Your task to perform on an android device: check data usage Image 0: 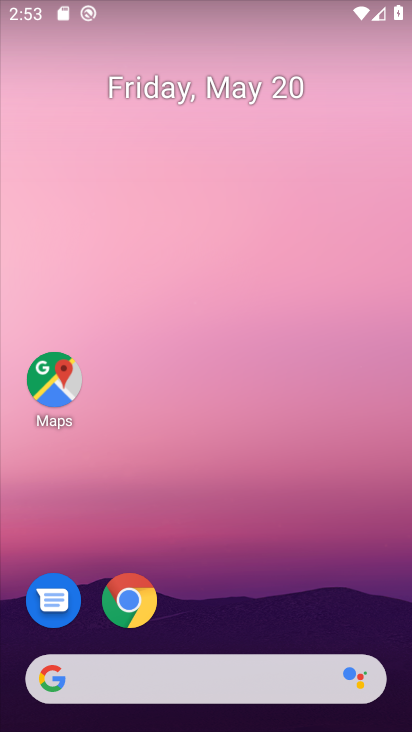
Step 0: drag from (359, 610) to (351, 158)
Your task to perform on an android device: check data usage Image 1: 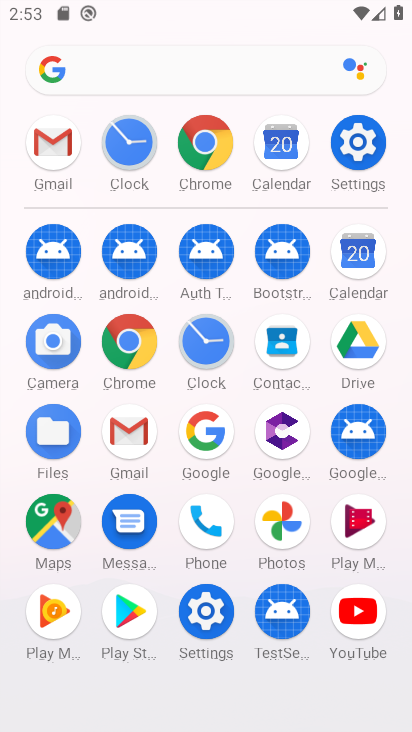
Step 1: click (359, 160)
Your task to perform on an android device: check data usage Image 2: 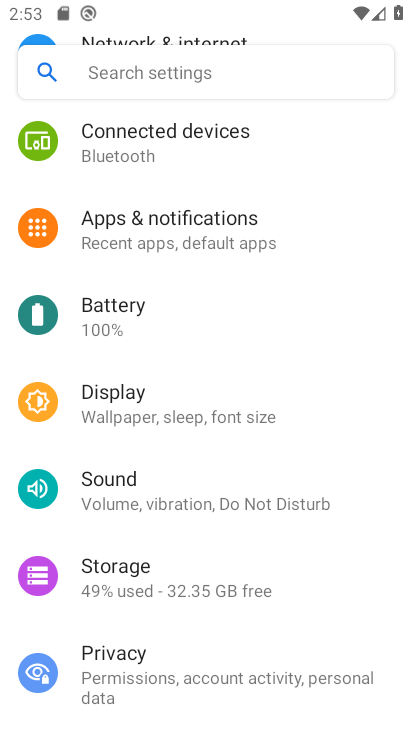
Step 2: drag from (349, 321) to (349, 466)
Your task to perform on an android device: check data usage Image 3: 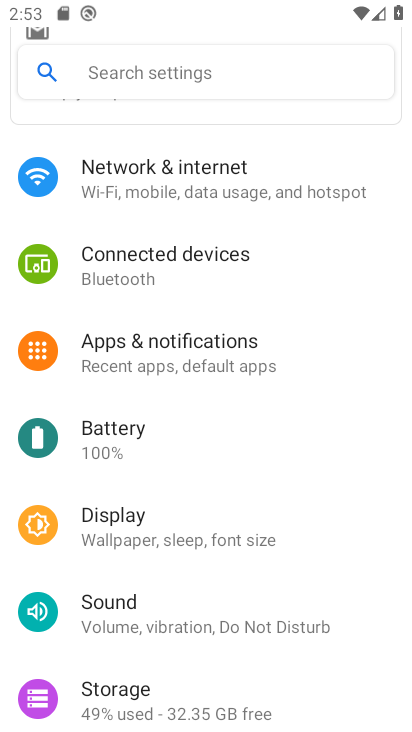
Step 3: drag from (342, 317) to (342, 436)
Your task to perform on an android device: check data usage Image 4: 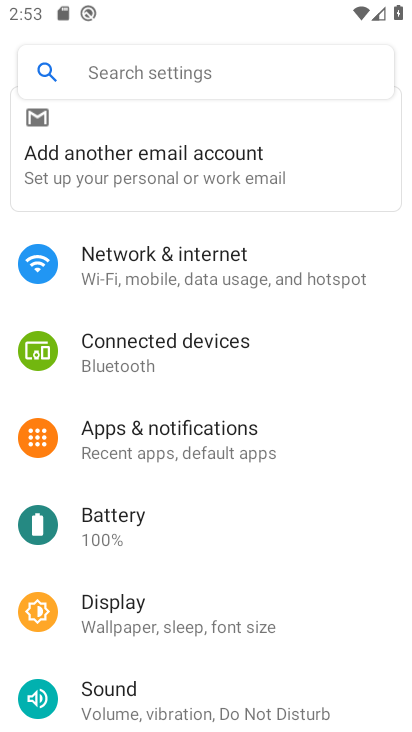
Step 4: drag from (338, 331) to (348, 475)
Your task to perform on an android device: check data usage Image 5: 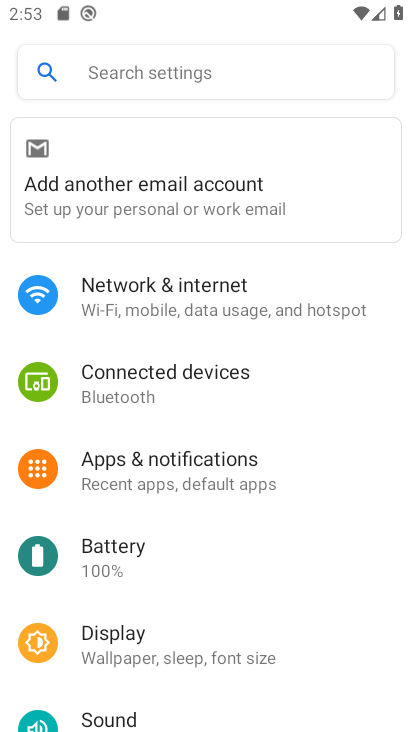
Step 5: drag from (330, 562) to (333, 440)
Your task to perform on an android device: check data usage Image 6: 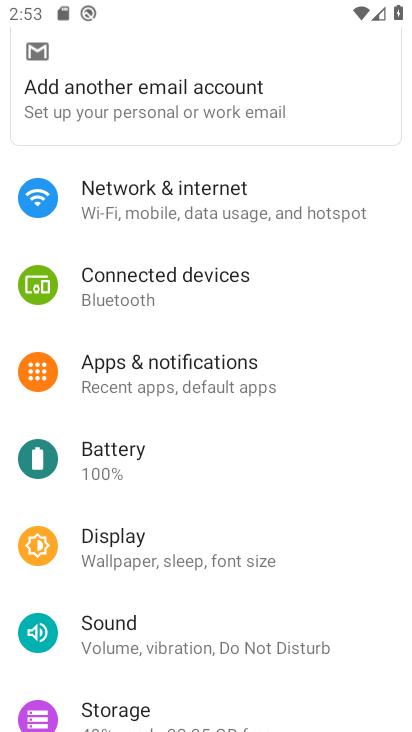
Step 6: drag from (336, 542) to (328, 425)
Your task to perform on an android device: check data usage Image 7: 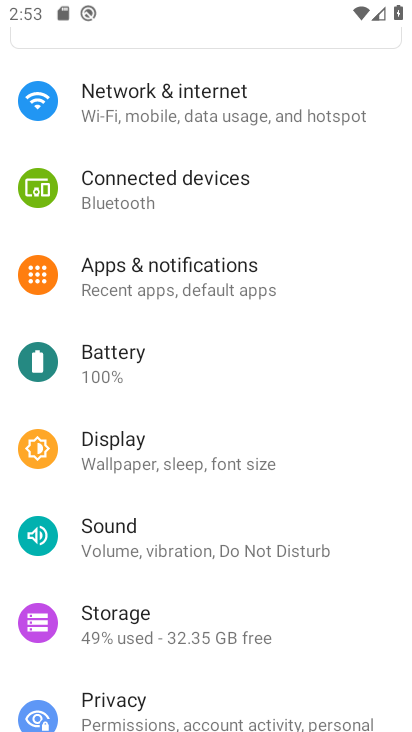
Step 7: drag from (350, 583) to (340, 450)
Your task to perform on an android device: check data usage Image 8: 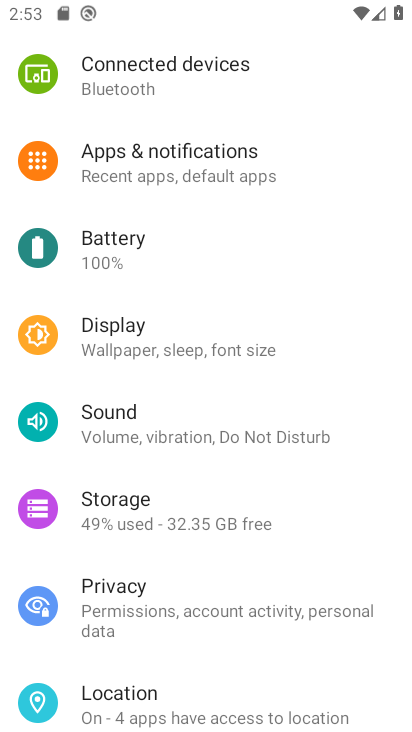
Step 8: drag from (344, 621) to (340, 465)
Your task to perform on an android device: check data usage Image 9: 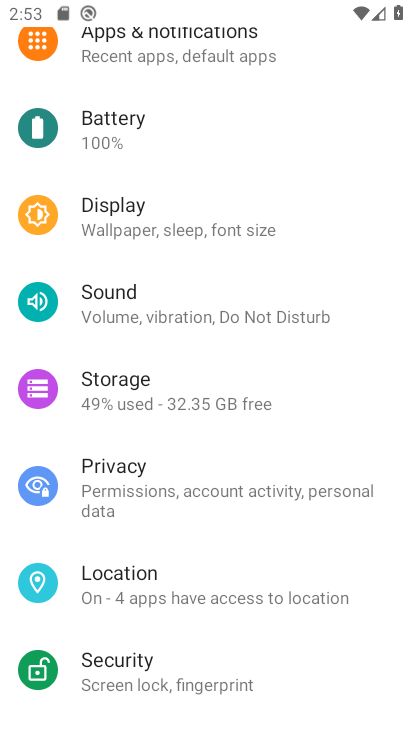
Step 9: drag from (348, 643) to (354, 527)
Your task to perform on an android device: check data usage Image 10: 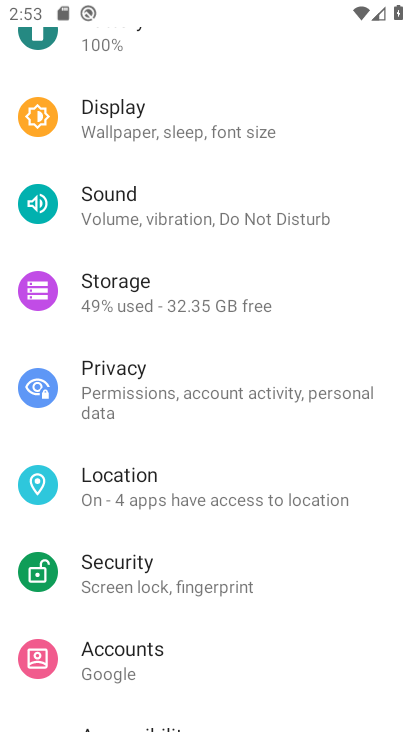
Step 10: drag from (353, 634) to (351, 435)
Your task to perform on an android device: check data usage Image 11: 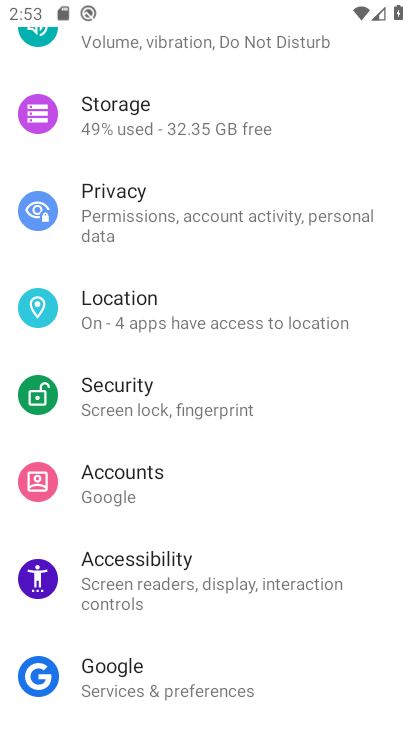
Step 11: drag from (348, 654) to (347, 497)
Your task to perform on an android device: check data usage Image 12: 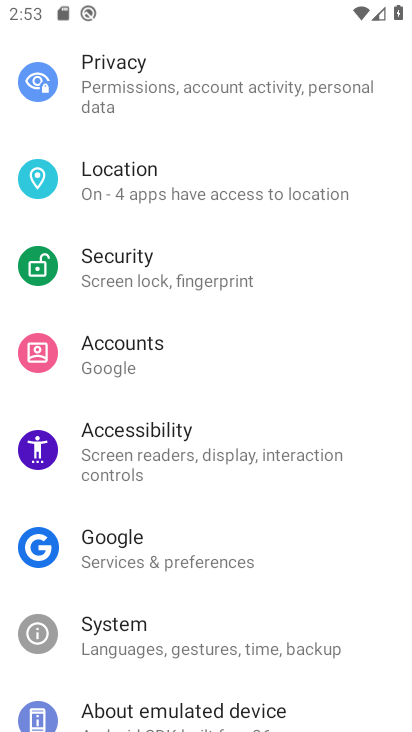
Step 12: drag from (353, 661) to (356, 492)
Your task to perform on an android device: check data usage Image 13: 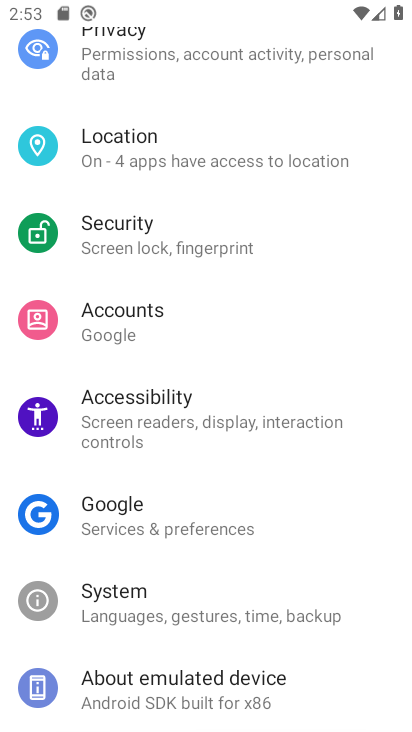
Step 13: drag from (356, 440) to (359, 552)
Your task to perform on an android device: check data usage Image 14: 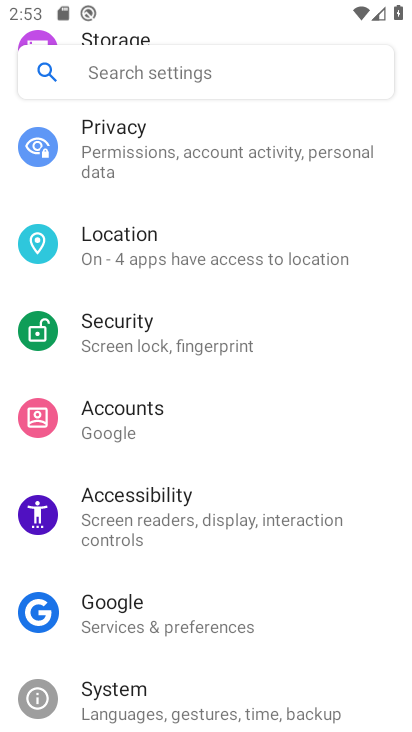
Step 14: drag from (351, 397) to (348, 541)
Your task to perform on an android device: check data usage Image 15: 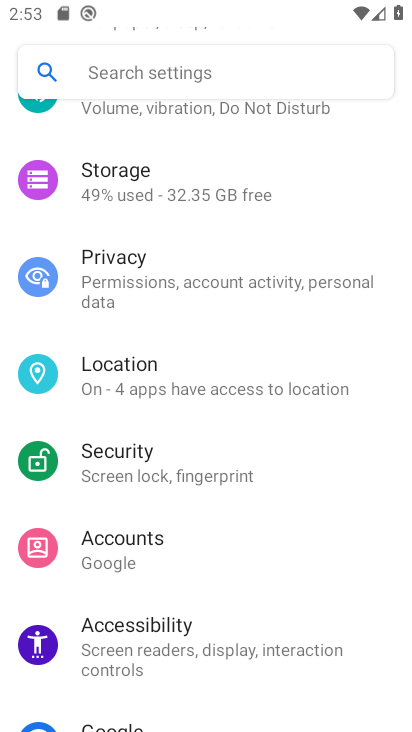
Step 15: drag from (335, 418) to (331, 525)
Your task to perform on an android device: check data usage Image 16: 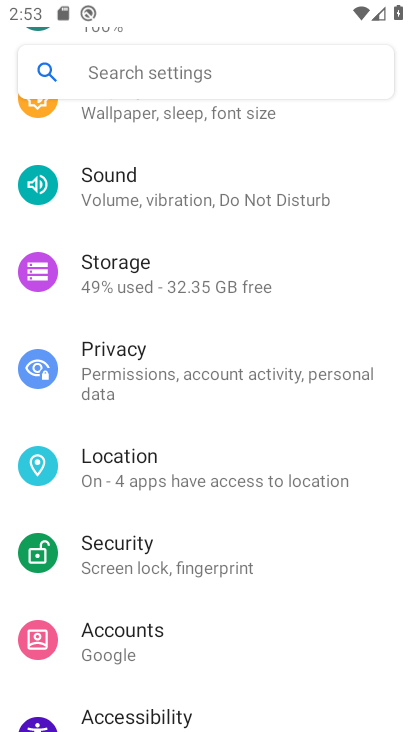
Step 16: drag from (333, 329) to (337, 453)
Your task to perform on an android device: check data usage Image 17: 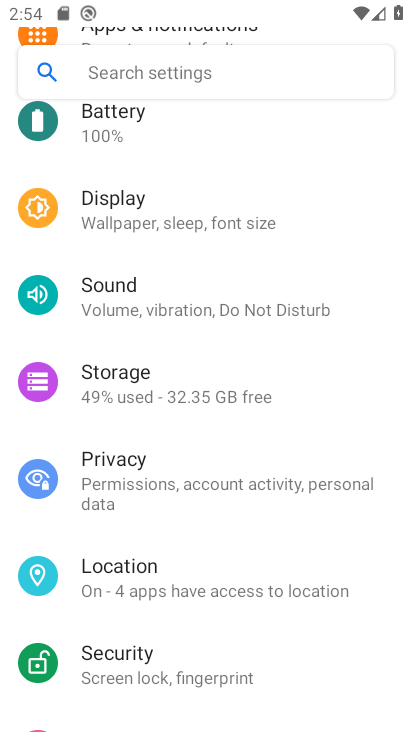
Step 17: drag from (340, 345) to (344, 424)
Your task to perform on an android device: check data usage Image 18: 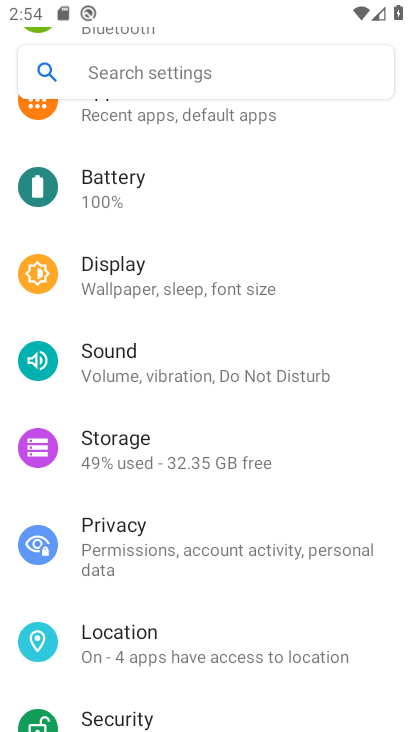
Step 18: drag from (338, 311) to (349, 435)
Your task to perform on an android device: check data usage Image 19: 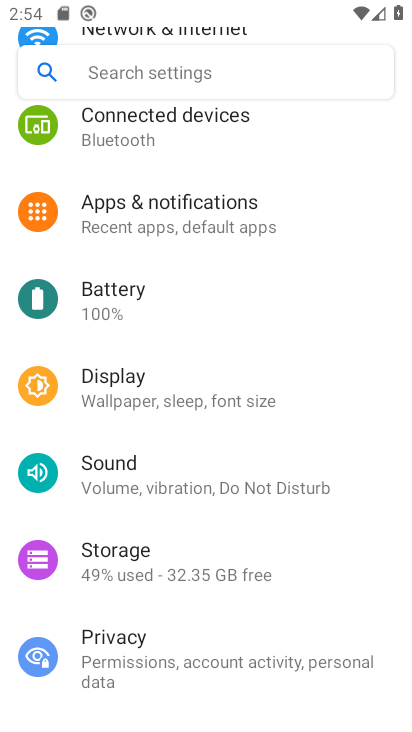
Step 19: drag from (336, 296) to (332, 398)
Your task to perform on an android device: check data usage Image 20: 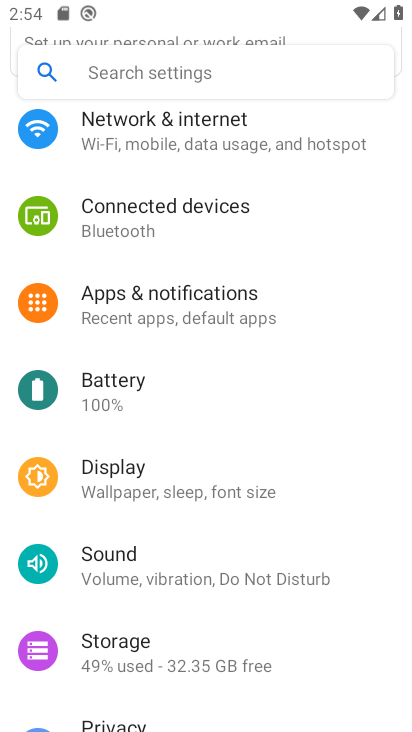
Step 20: drag from (314, 257) to (318, 367)
Your task to perform on an android device: check data usage Image 21: 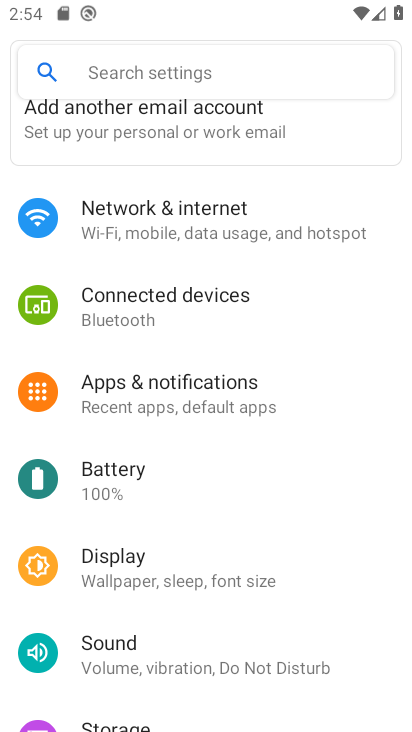
Step 21: drag from (318, 190) to (326, 379)
Your task to perform on an android device: check data usage Image 22: 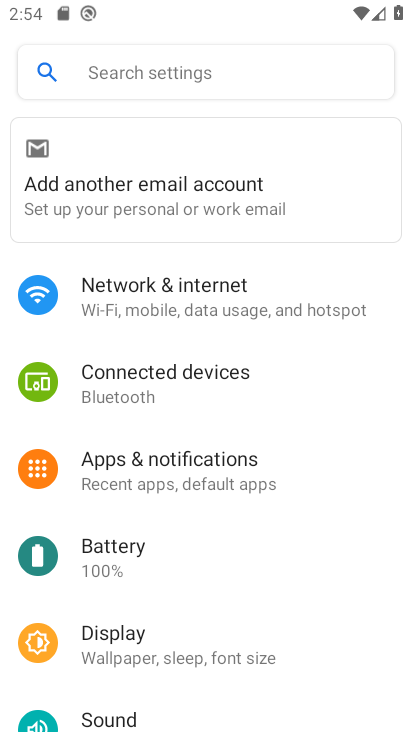
Step 22: click (288, 310)
Your task to perform on an android device: check data usage Image 23: 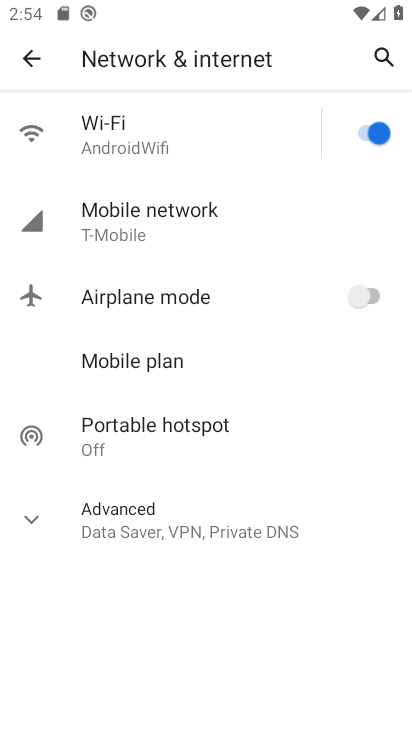
Step 23: click (172, 225)
Your task to perform on an android device: check data usage Image 24: 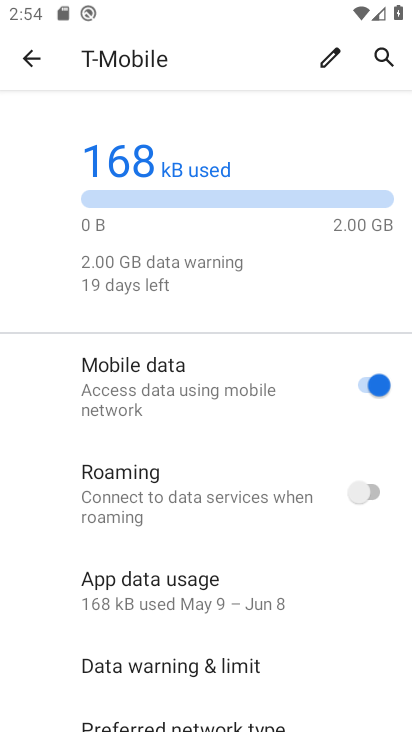
Step 24: drag from (233, 505) to (233, 344)
Your task to perform on an android device: check data usage Image 25: 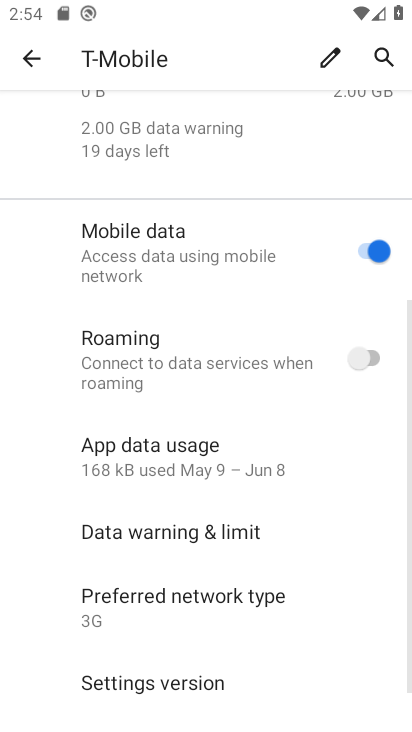
Step 25: drag from (275, 513) to (279, 380)
Your task to perform on an android device: check data usage Image 26: 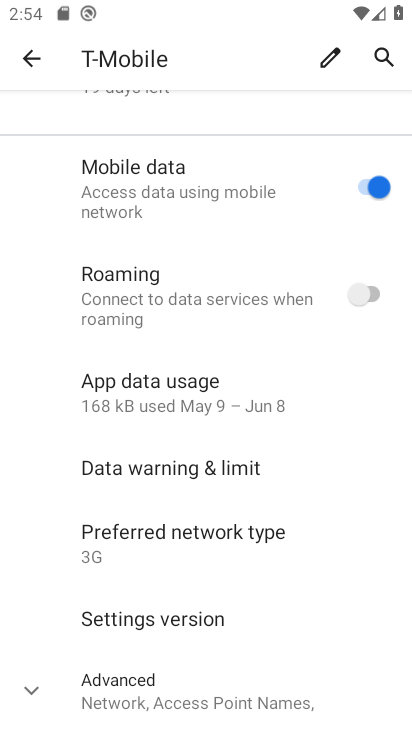
Step 26: click (195, 402)
Your task to perform on an android device: check data usage Image 27: 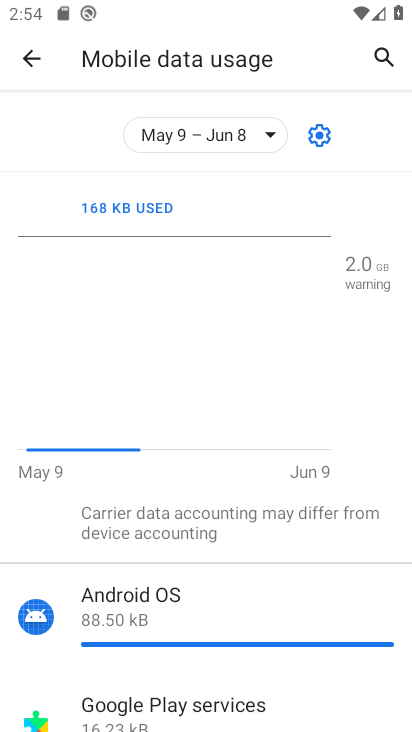
Step 27: task complete